Your task to perform on an android device: turn off picture-in-picture Image 0: 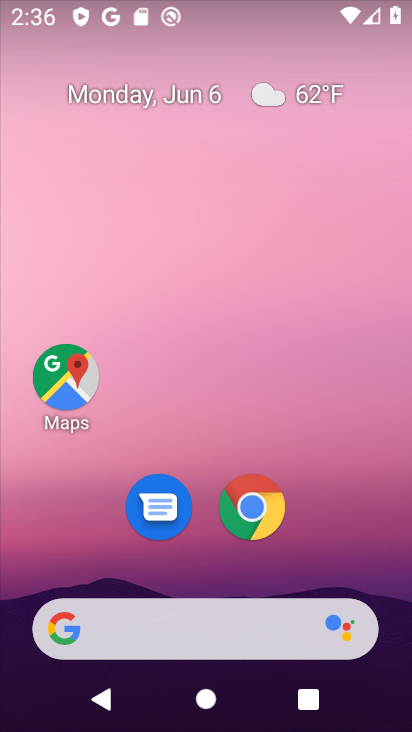
Step 0: click (257, 503)
Your task to perform on an android device: turn off picture-in-picture Image 1: 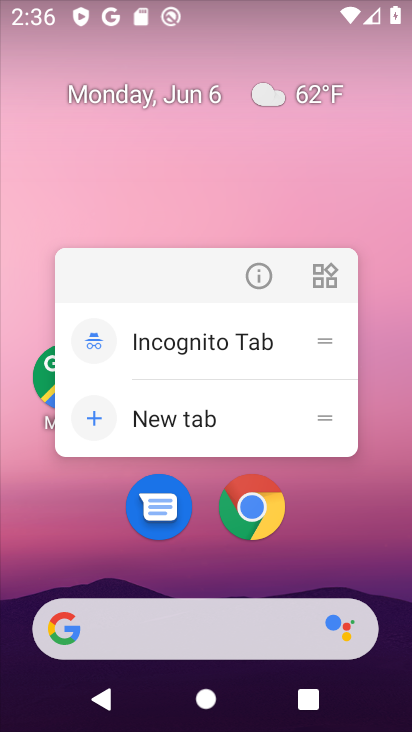
Step 1: click (261, 269)
Your task to perform on an android device: turn off picture-in-picture Image 2: 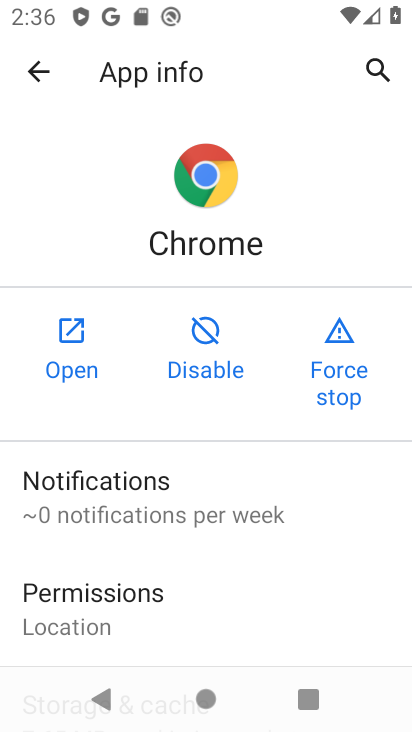
Step 2: drag from (211, 598) to (211, 217)
Your task to perform on an android device: turn off picture-in-picture Image 3: 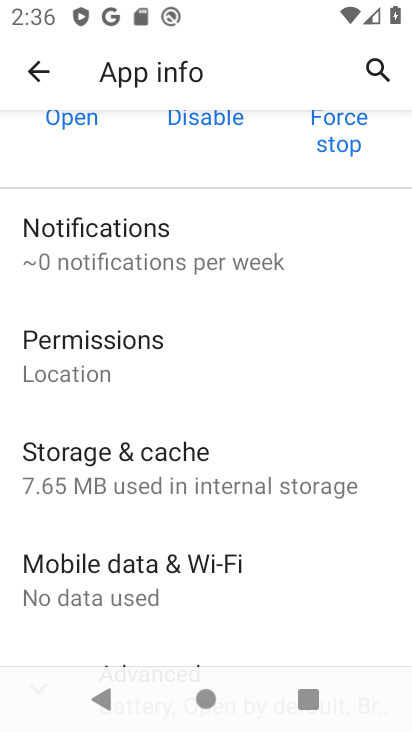
Step 3: drag from (302, 548) to (341, 285)
Your task to perform on an android device: turn off picture-in-picture Image 4: 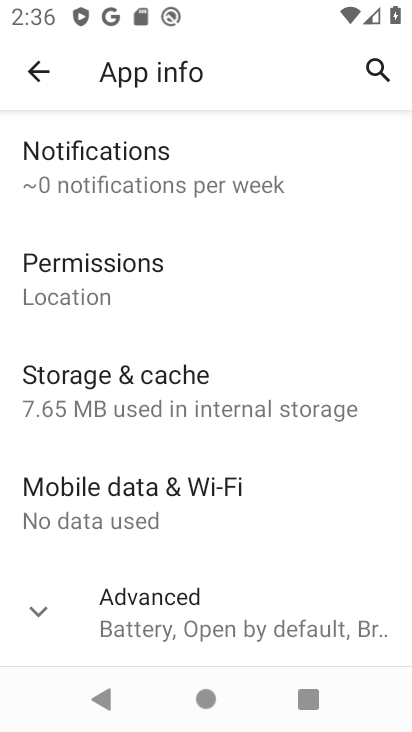
Step 4: click (104, 619)
Your task to perform on an android device: turn off picture-in-picture Image 5: 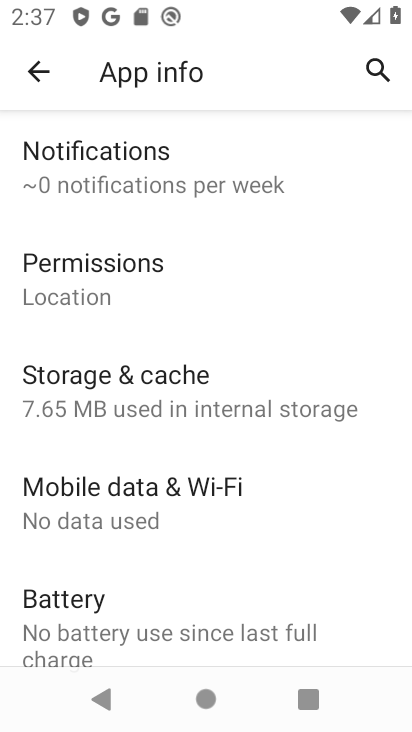
Step 5: drag from (266, 592) to (264, 179)
Your task to perform on an android device: turn off picture-in-picture Image 6: 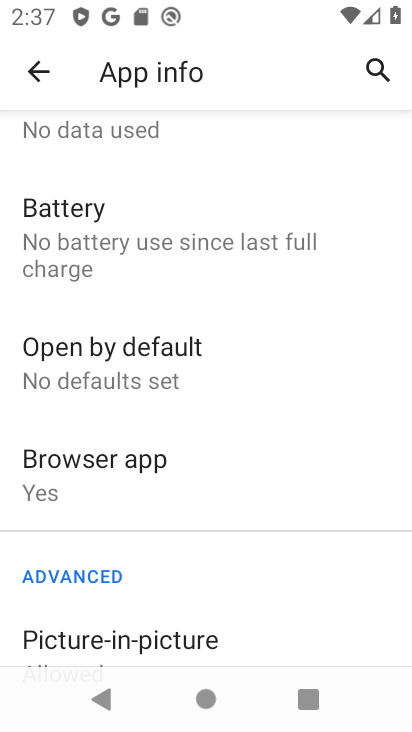
Step 6: click (172, 642)
Your task to perform on an android device: turn off picture-in-picture Image 7: 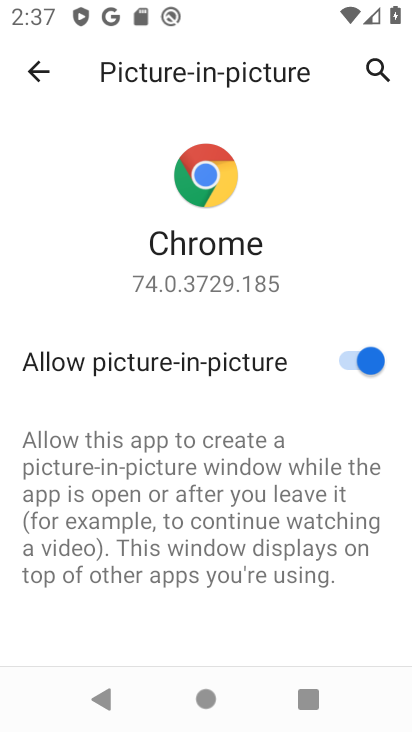
Step 7: click (348, 359)
Your task to perform on an android device: turn off picture-in-picture Image 8: 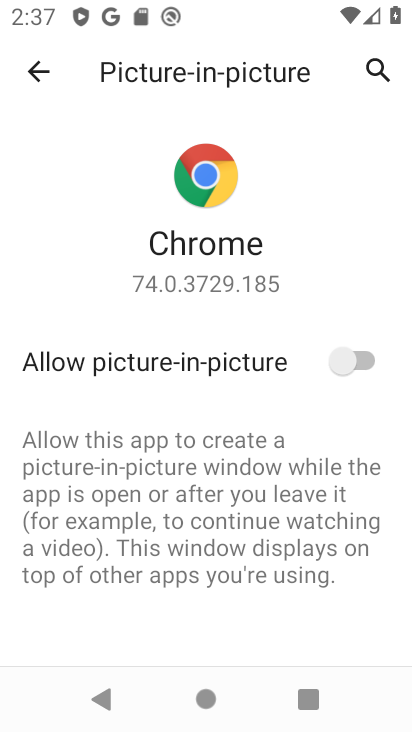
Step 8: task complete